Your task to perform on an android device: set the stopwatch Image 0: 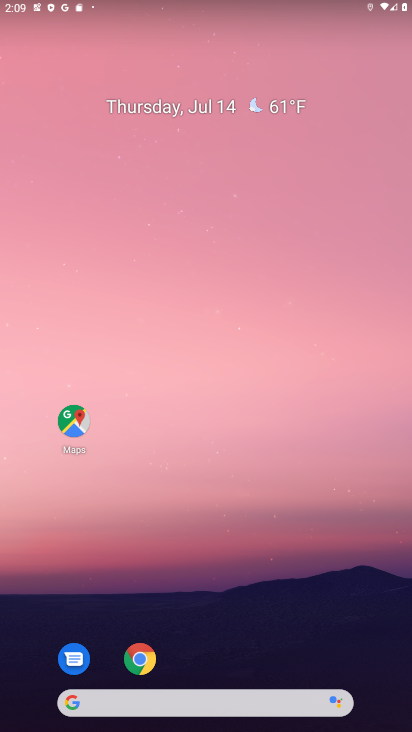
Step 0: drag from (184, 676) to (133, 115)
Your task to perform on an android device: set the stopwatch Image 1: 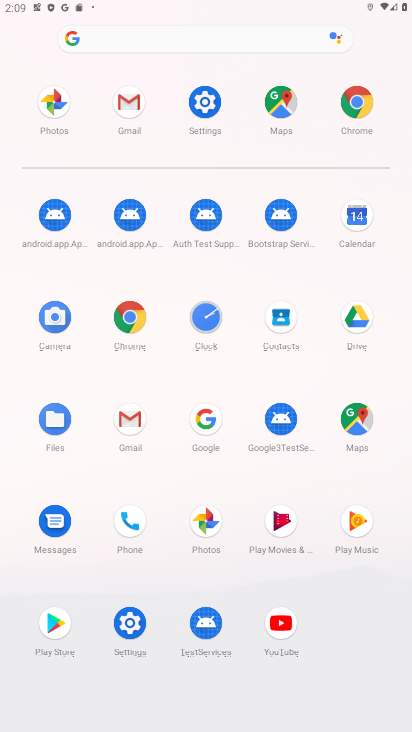
Step 1: click (212, 316)
Your task to perform on an android device: set the stopwatch Image 2: 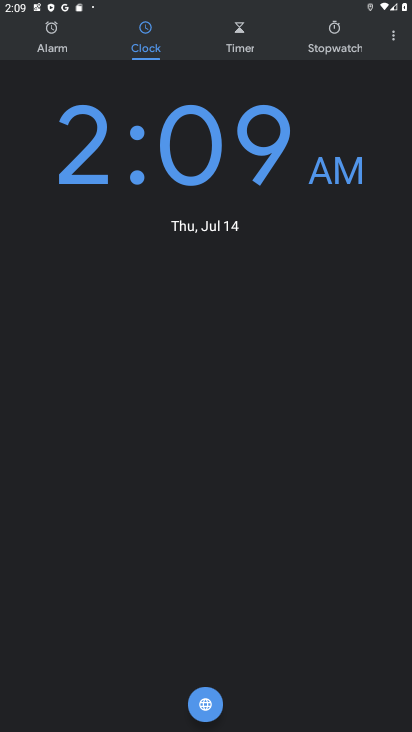
Step 2: click (309, 29)
Your task to perform on an android device: set the stopwatch Image 3: 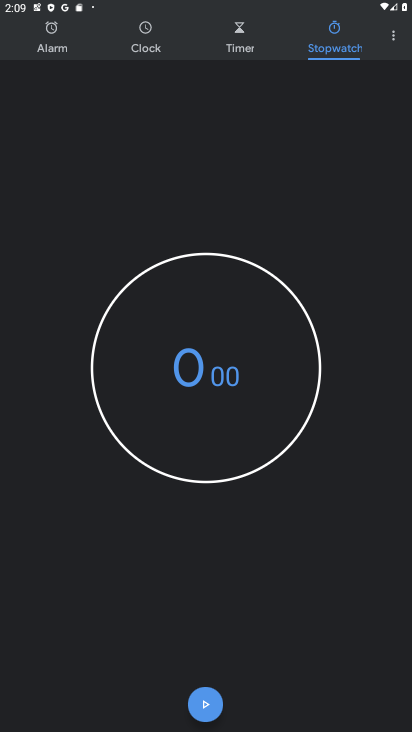
Step 3: click (222, 692)
Your task to perform on an android device: set the stopwatch Image 4: 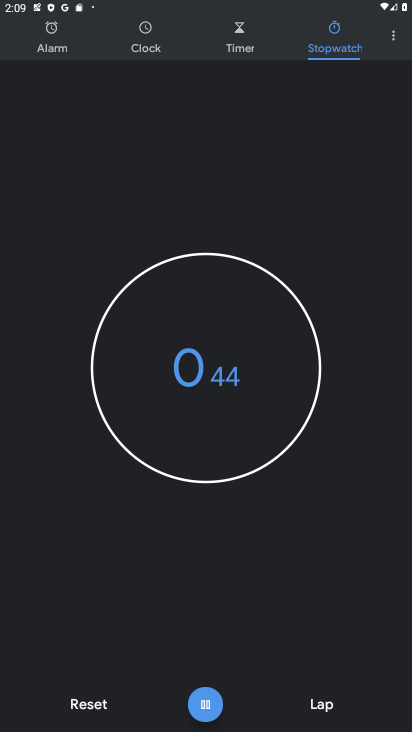
Step 4: click (221, 693)
Your task to perform on an android device: set the stopwatch Image 5: 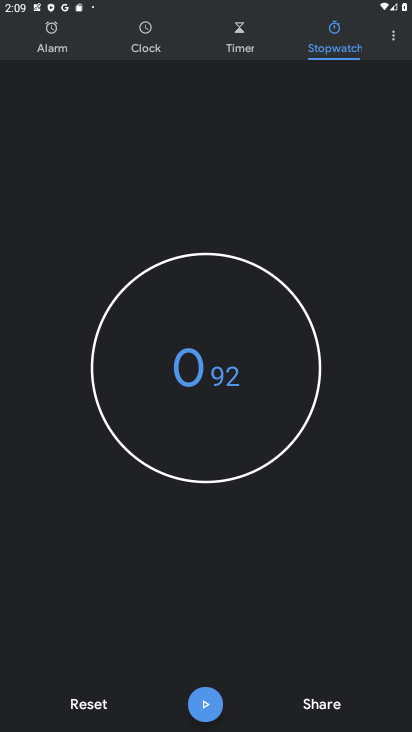
Step 5: task complete